Your task to perform on an android device: turn off priority inbox in the gmail app Image 0: 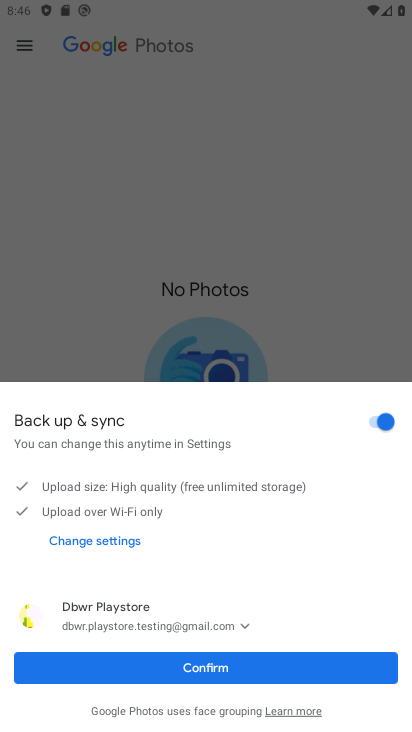
Step 0: press home button
Your task to perform on an android device: turn off priority inbox in the gmail app Image 1: 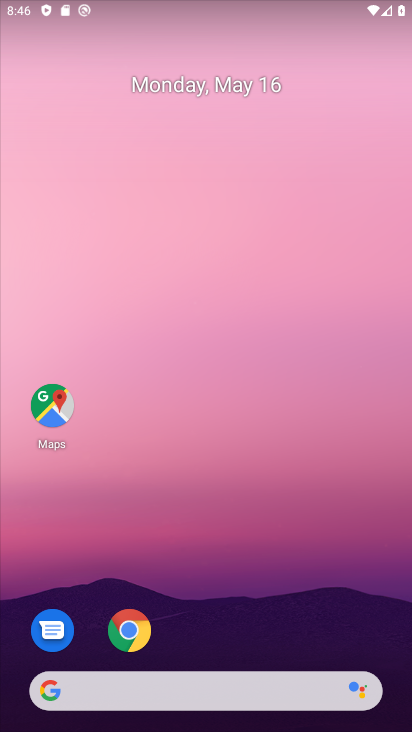
Step 1: drag from (200, 654) to (284, 124)
Your task to perform on an android device: turn off priority inbox in the gmail app Image 2: 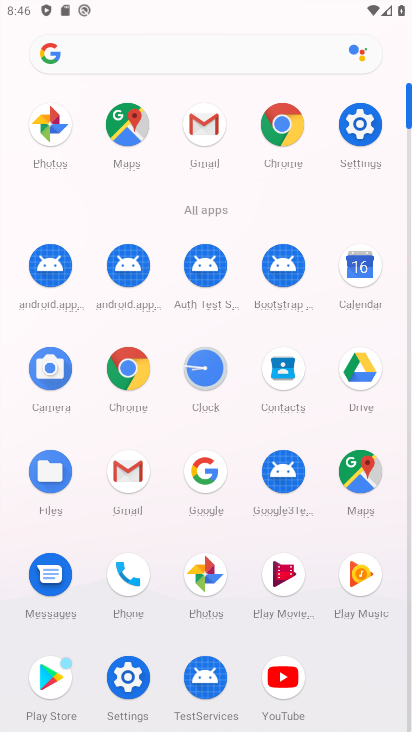
Step 2: click (127, 459)
Your task to perform on an android device: turn off priority inbox in the gmail app Image 3: 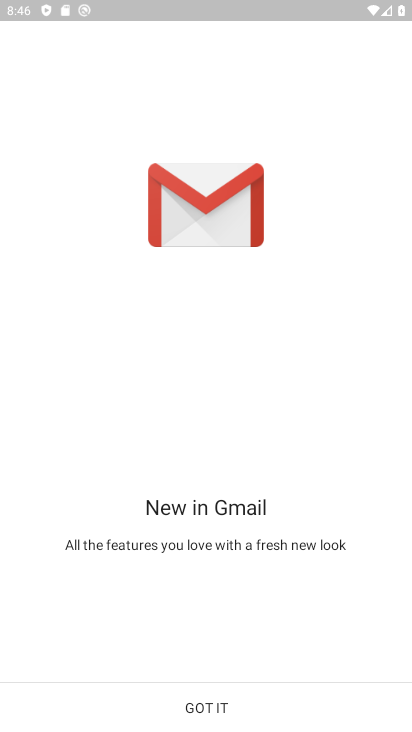
Step 3: click (199, 713)
Your task to perform on an android device: turn off priority inbox in the gmail app Image 4: 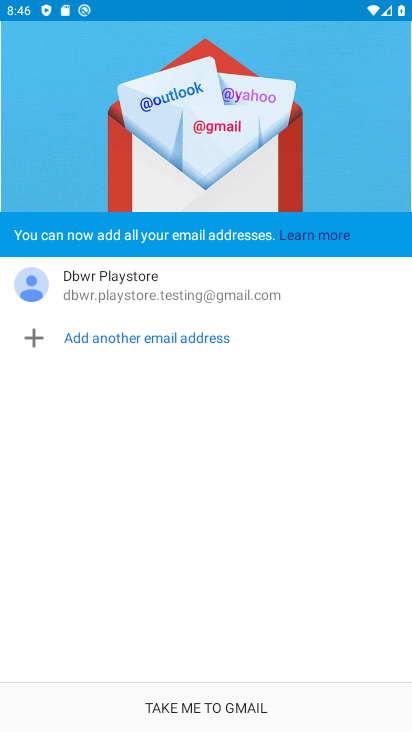
Step 4: click (200, 712)
Your task to perform on an android device: turn off priority inbox in the gmail app Image 5: 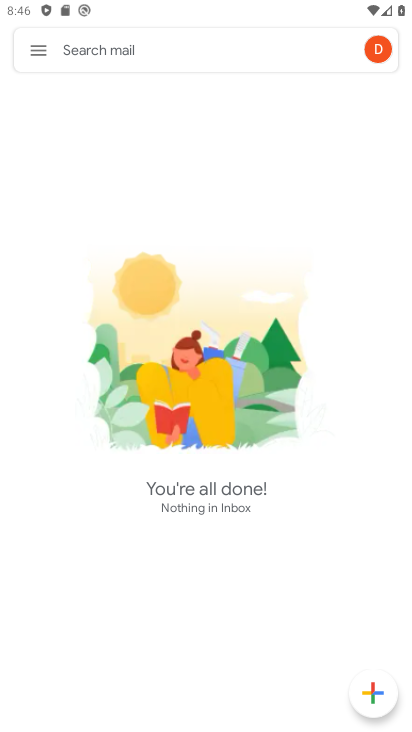
Step 5: click (43, 55)
Your task to perform on an android device: turn off priority inbox in the gmail app Image 6: 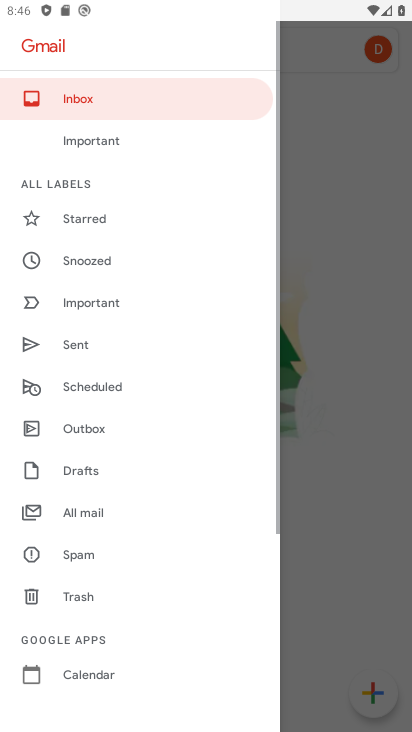
Step 6: drag from (74, 642) to (166, 295)
Your task to perform on an android device: turn off priority inbox in the gmail app Image 7: 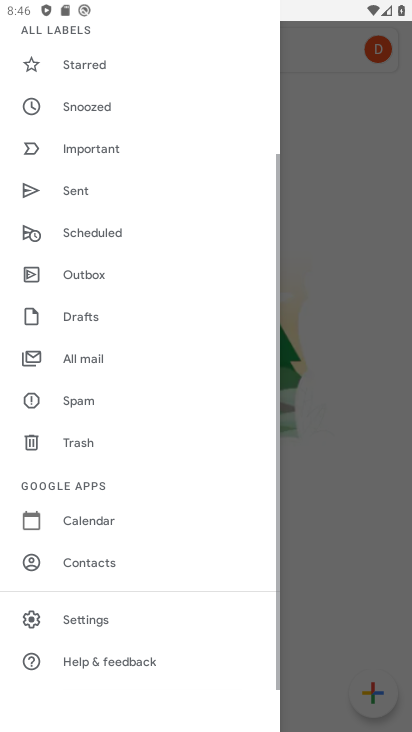
Step 7: click (126, 607)
Your task to perform on an android device: turn off priority inbox in the gmail app Image 8: 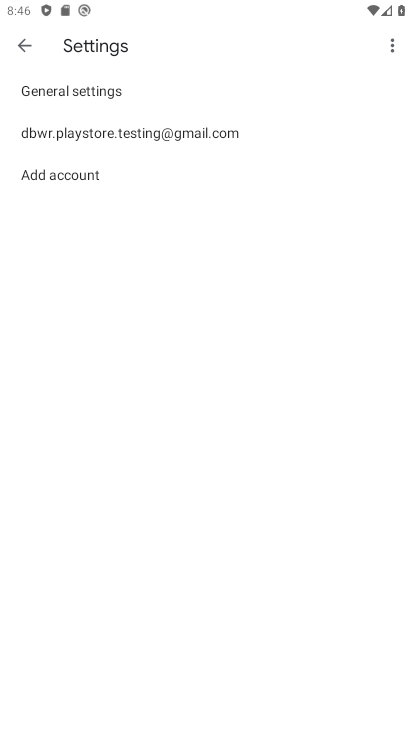
Step 8: click (253, 135)
Your task to perform on an android device: turn off priority inbox in the gmail app Image 9: 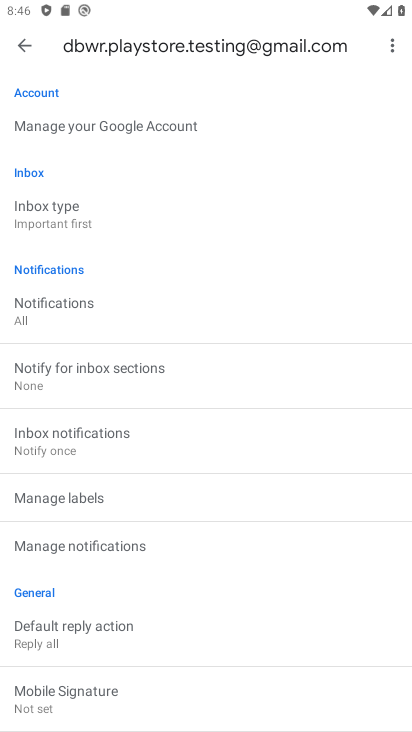
Step 9: task complete